Your task to perform on an android device: Open Android settings Image 0: 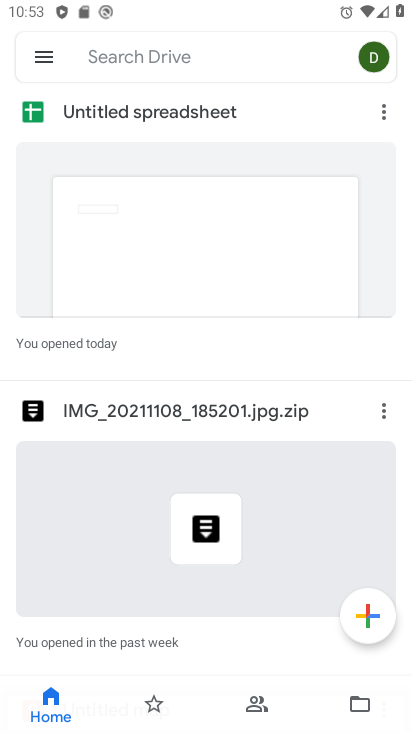
Step 0: press home button
Your task to perform on an android device: Open Android settings Image 1: 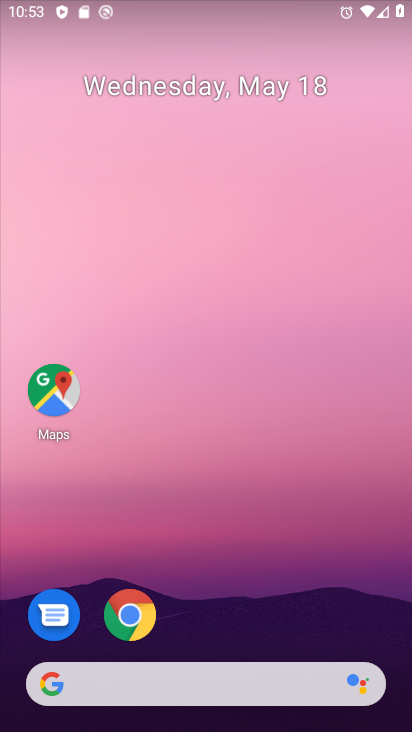
Step 1: drag from (233, 657) to (227, 205)
Your task to perform on an android device: Open Android settings Image 2: 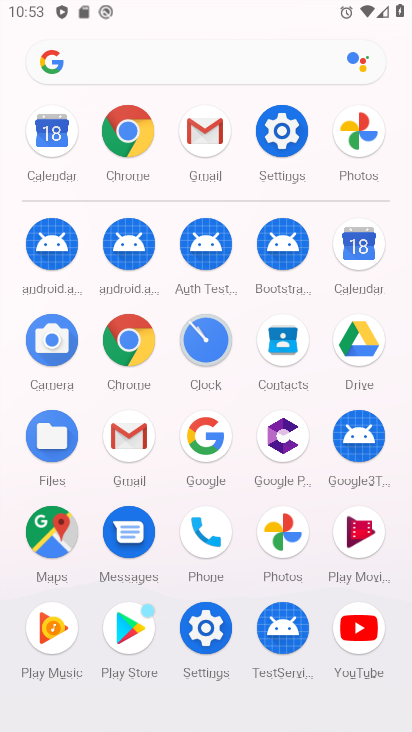
Step 2: click (267, 133)
Your task to perform on an android device: Open Android settings Image 3: 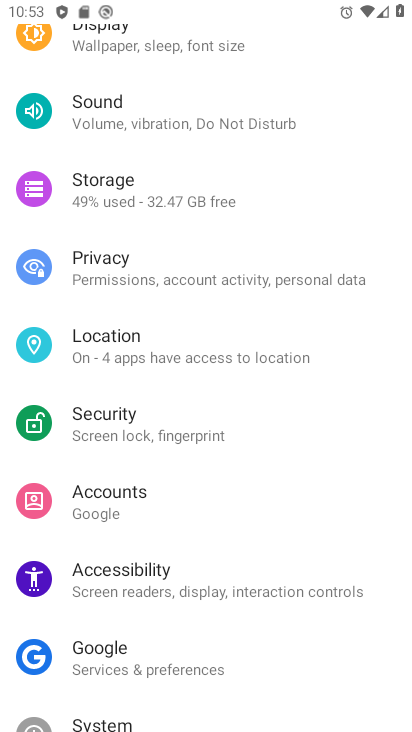
Step 3: task complete